Your task to perform on an android device: Open Wikipedia Image 0: 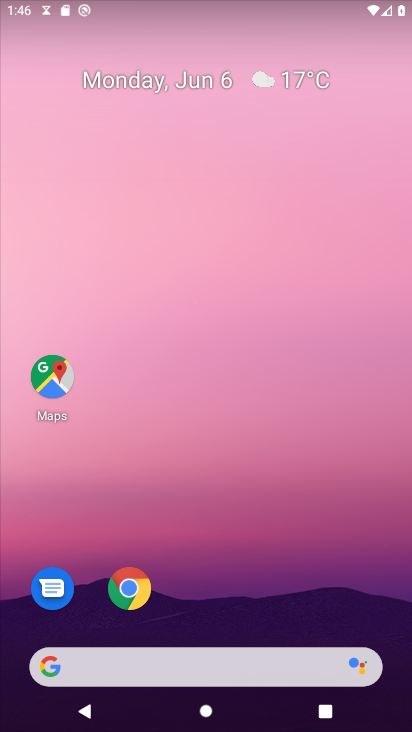
Step 0: click (126, 603)
Your task to perform on an android device: Open Wikipedia Image 1: 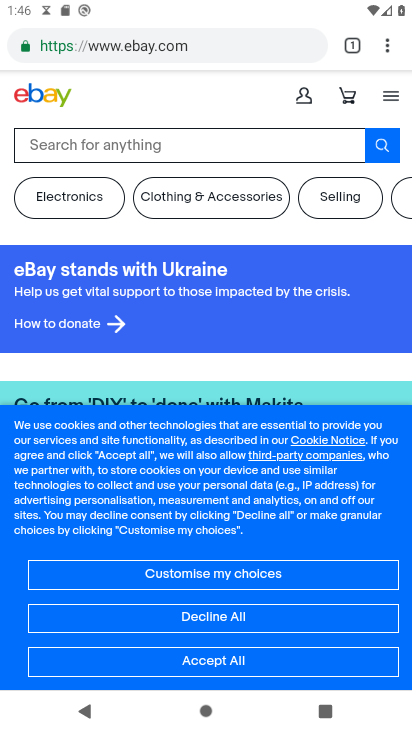
Step 1: press back button
Your task to perform on an android device: Open Wikipedia Image 2: 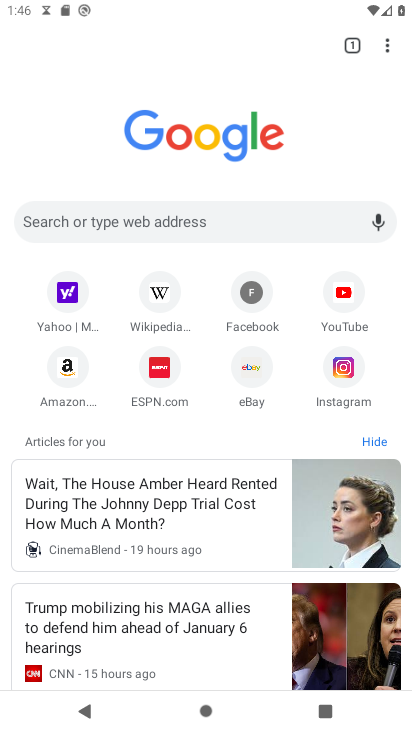
Step 2: click (155, 305)
Your task to perform on an android device: Open Wikipedia Image 3: 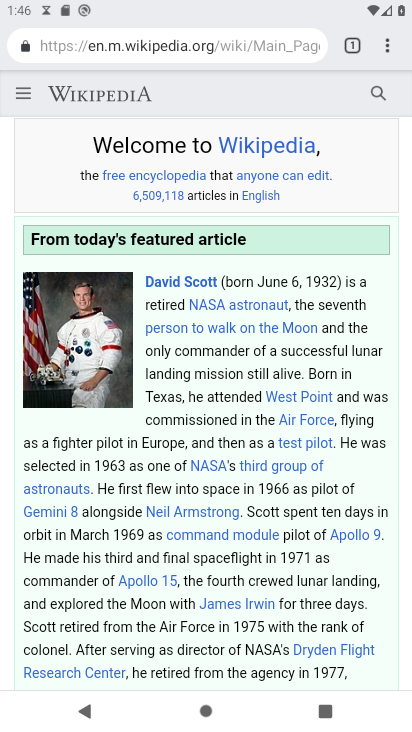
Step 3: task complete